Your task to perform on an android device: Open maps Image 0: 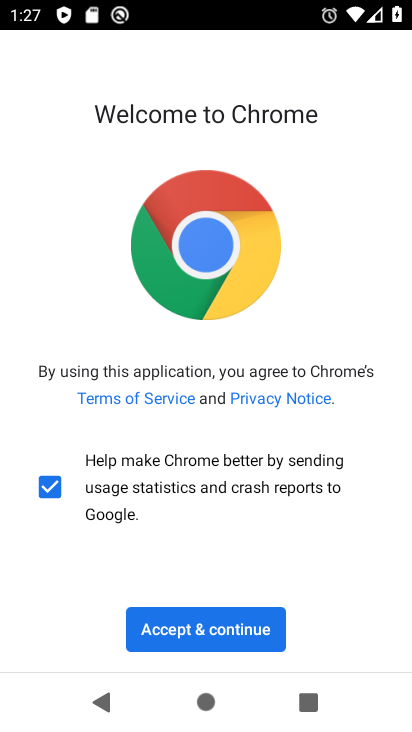
Step 0: press home button
Your task to perform on an android device: Open maps Image 1: 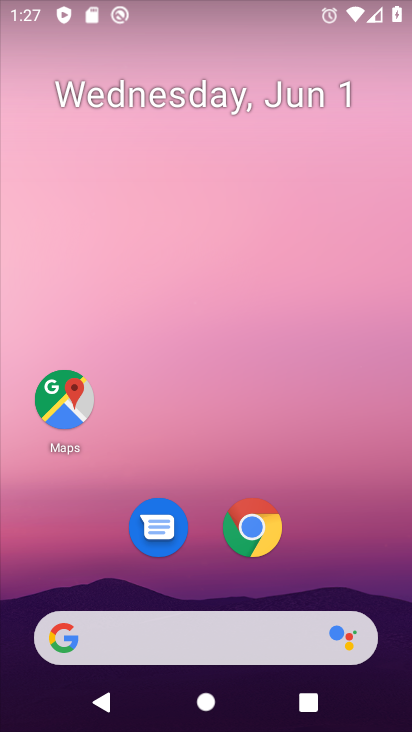
Step 1: click (80, 385)
Your task to perform on an android device: Open maps Image 2: 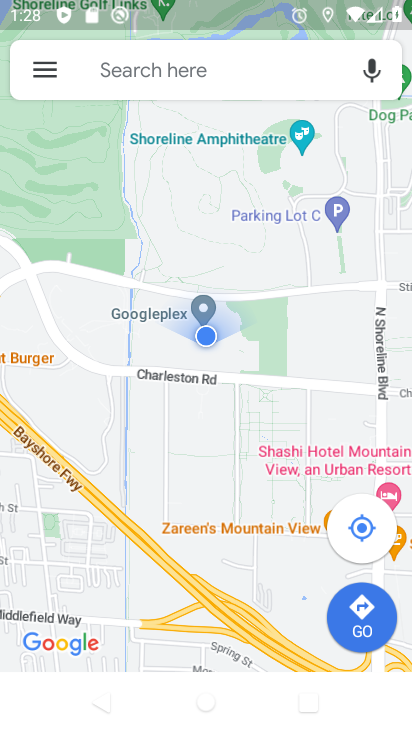
Step 2: task complete